Your task to perform on an android device: What's on my calendar tomorrow? Image 0: 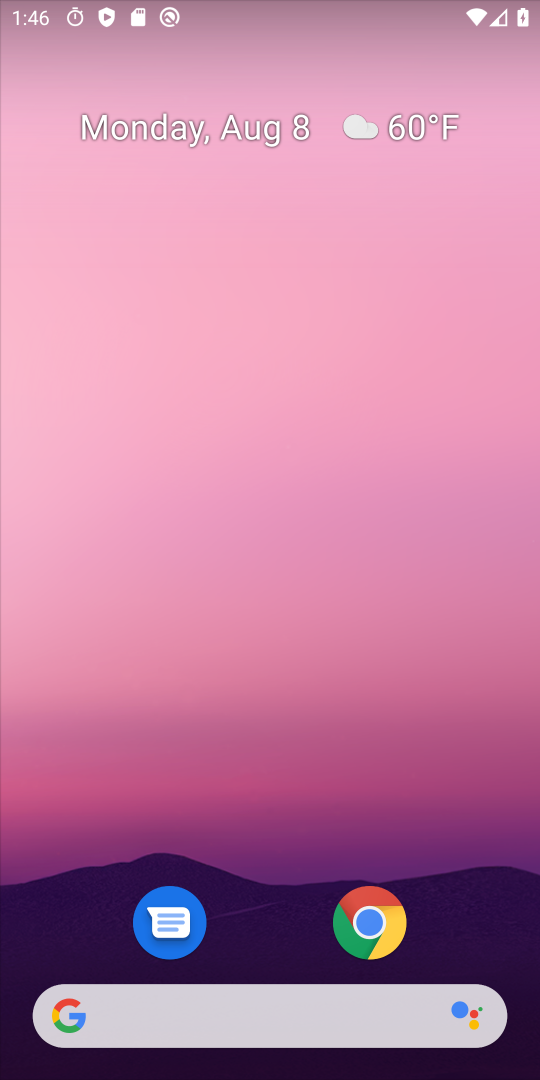
Step 0: drag from (306, 792) to (366, 10)
Your task to perform on an android device: What's on my calendar tomorrow? Image 1: 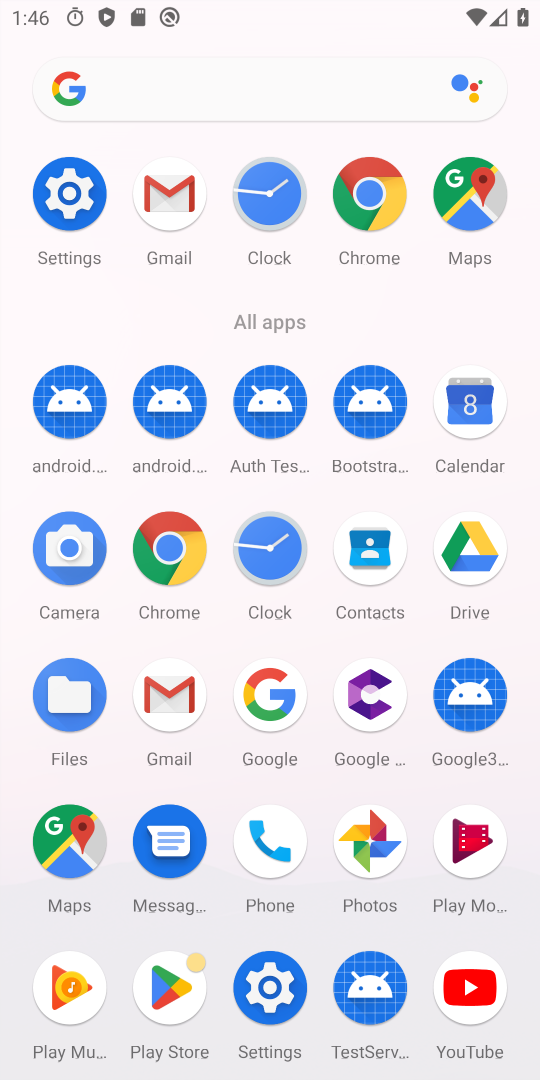
Step 1: click (471, 398)
Your task to perform on an android device: What's on my calendar tomorrow? Image 2: 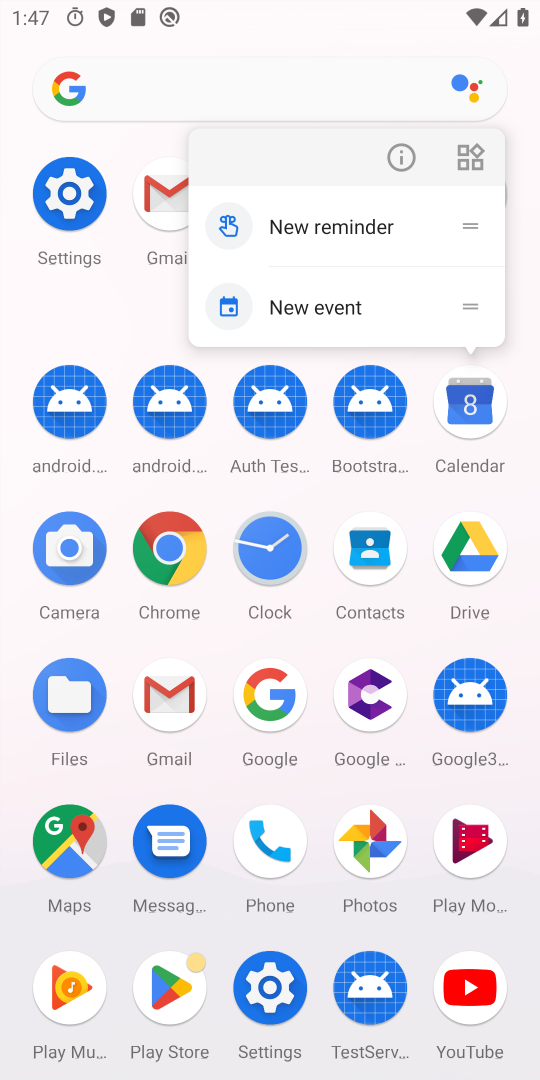
Step 2: click (457, 411)
Your task to perform on an android device: What's on my calendar tomorrow? Image 3: 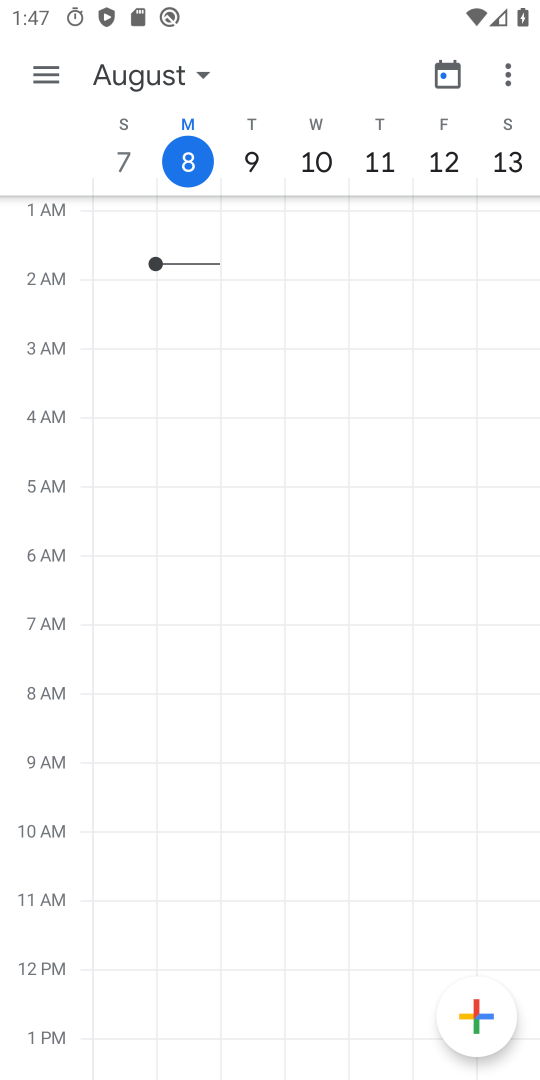
Step 3: click (166, 78)
Your task to perform on an android device: What's on my calendar tomorrow? Image 4: 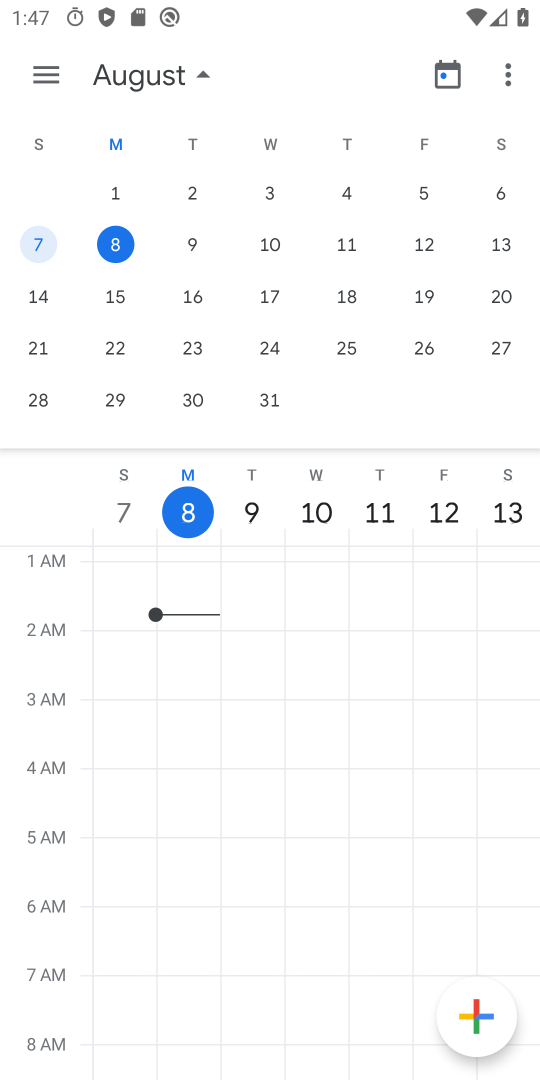
Step 4: click (479, 278)
Your task to perform on an android device: What's on my calendar tomorrow? Image 5: 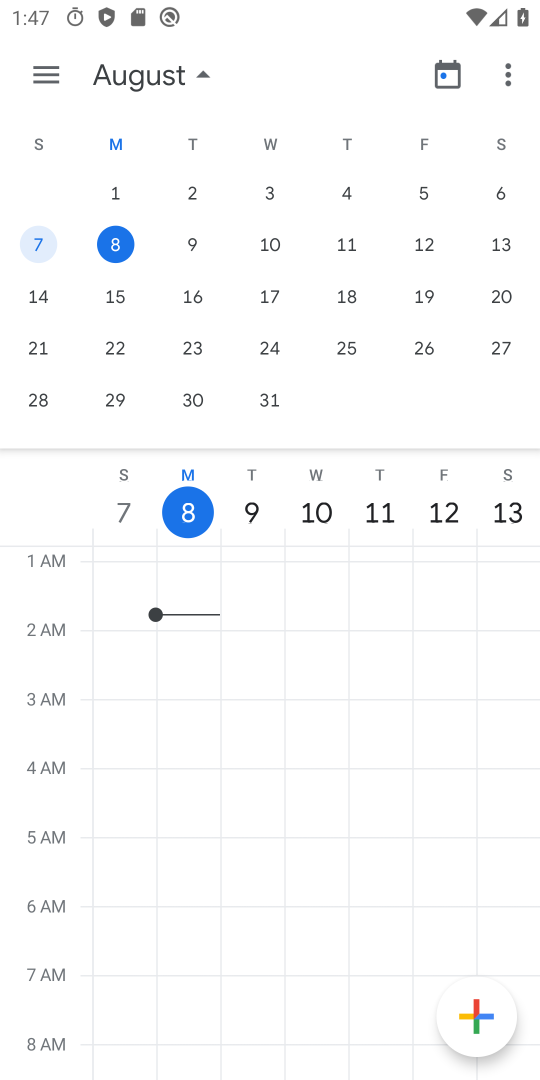
Step 5: click (195, 237)
Your task to perform on an android device: What's on my calendar tomorrow? Image 6: 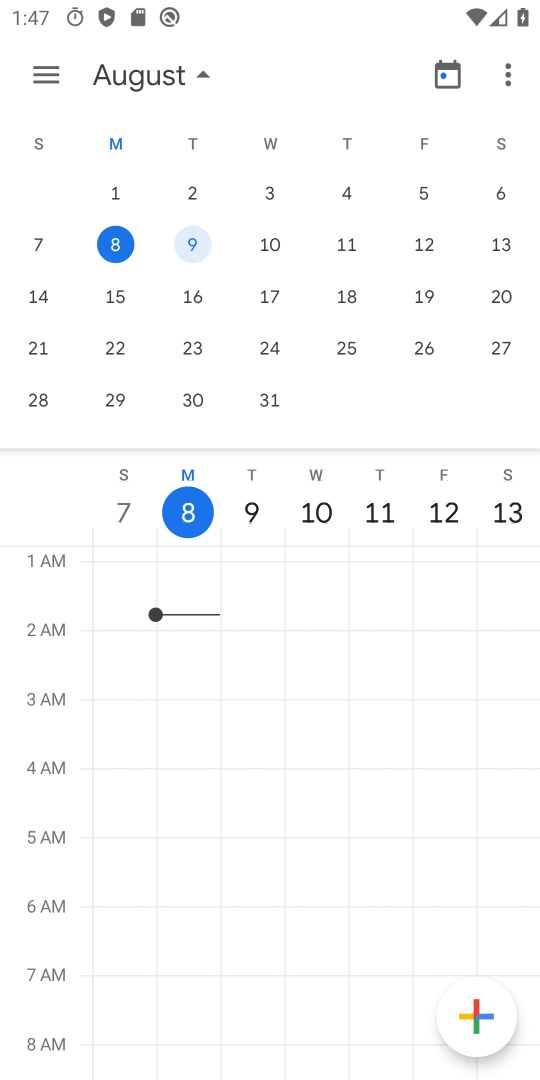
Step 6: click (252, 510)
Your task to perform on an android device: What's on my calendar tomorrow? Image 7: 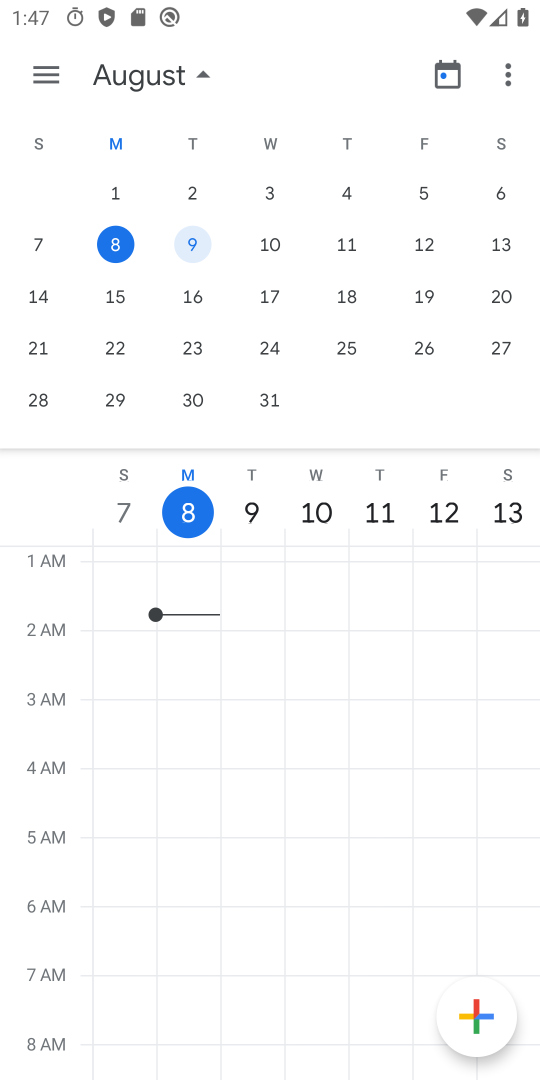
Step 7: click (261, 511)
Your task to perform on an android device: What's on my calendar tomorrow? Image 8: 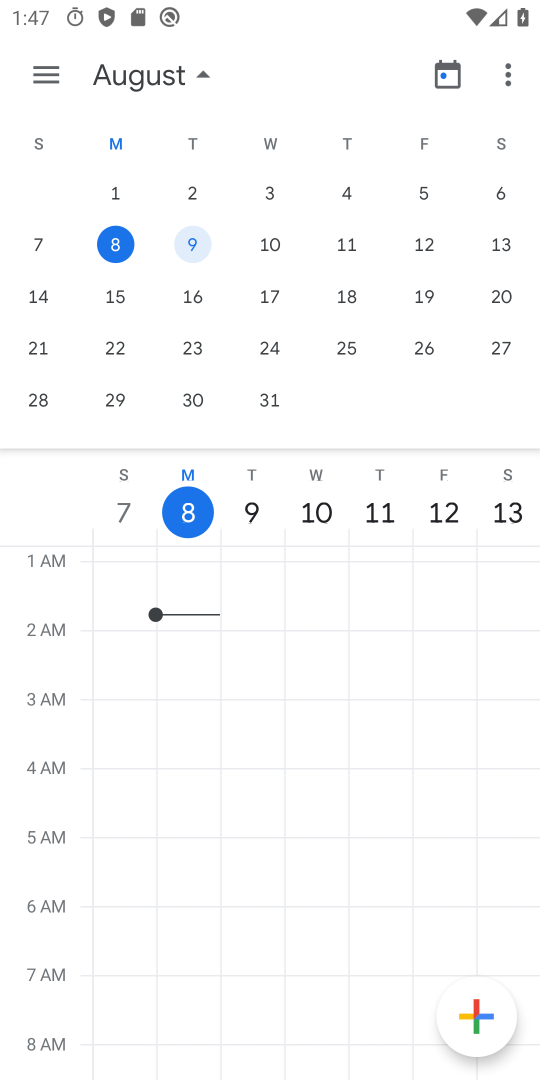
Step 8: click (253, 503)
Your task to perform on an android device: What's on my calendar tomorrow? Image 9: 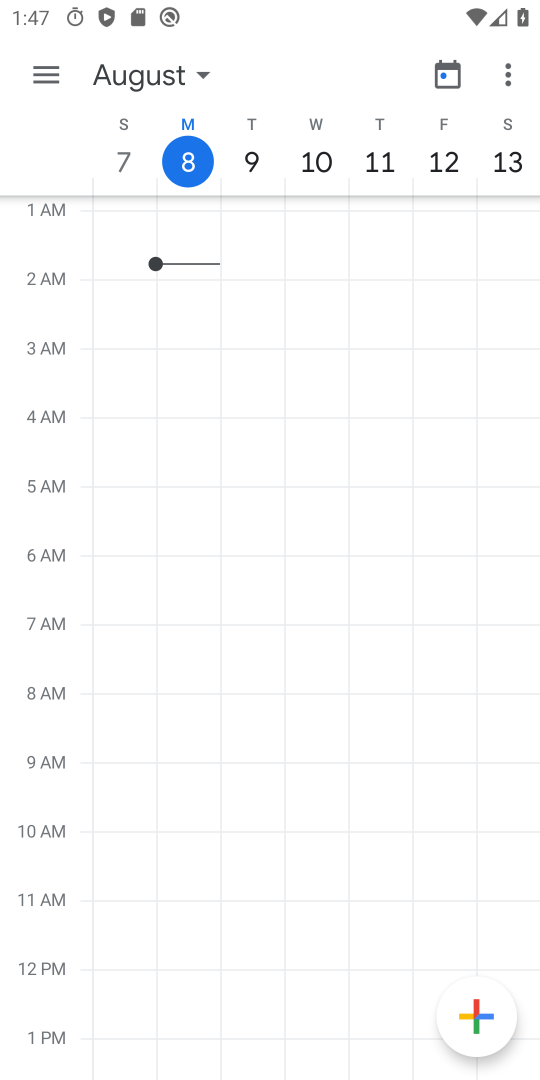
Step 9: click (244, 163)
Your task to perform on an android device: What's on my calendar tomorrow? Image 10: 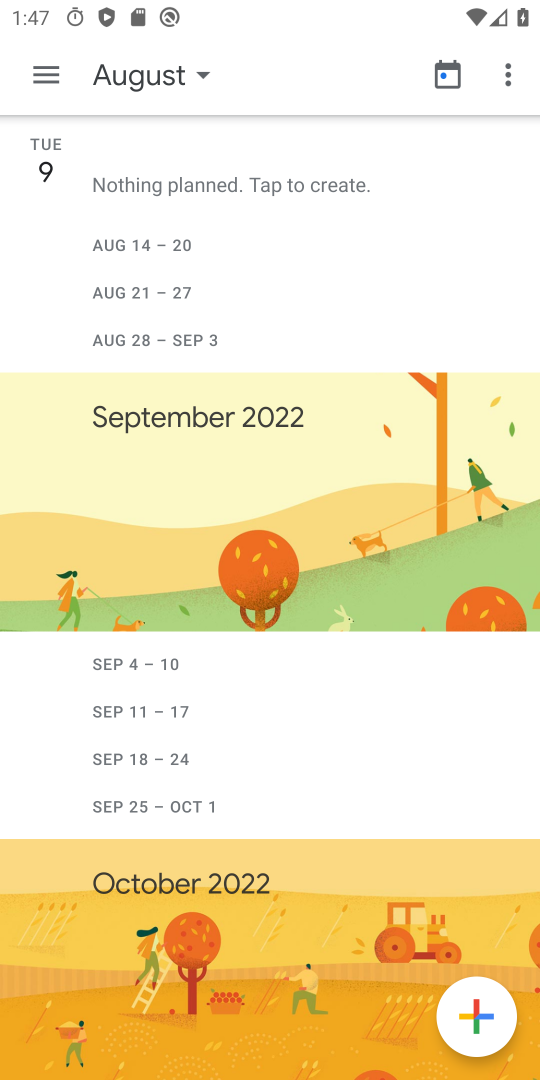
Step 10: task complete